Your task to perform on an android device: all mails in gmail Image 0: 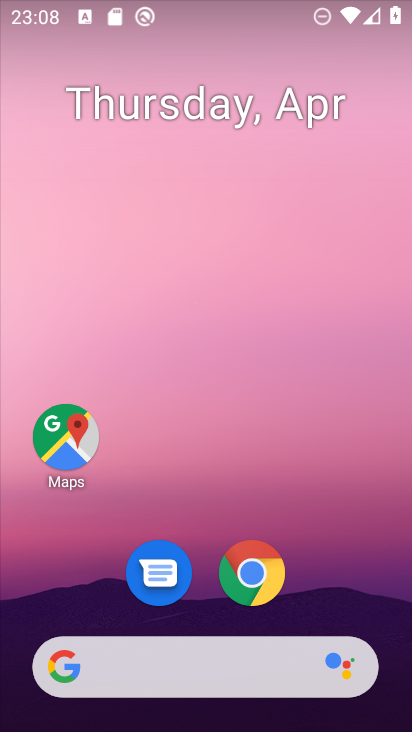
Step 0: drag from (336, 610) to (339, 74)
Your task to perform on an android device: all mails in gmail Image 1: 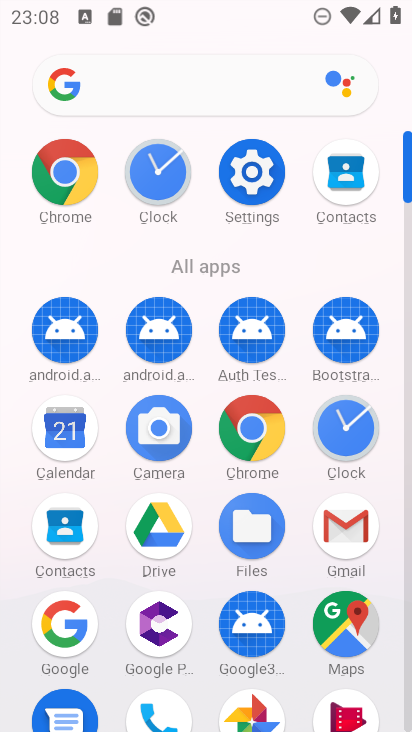
Step 1: click (363, 539)
Your task to perform on an android device: all mails in gmail Image 2: 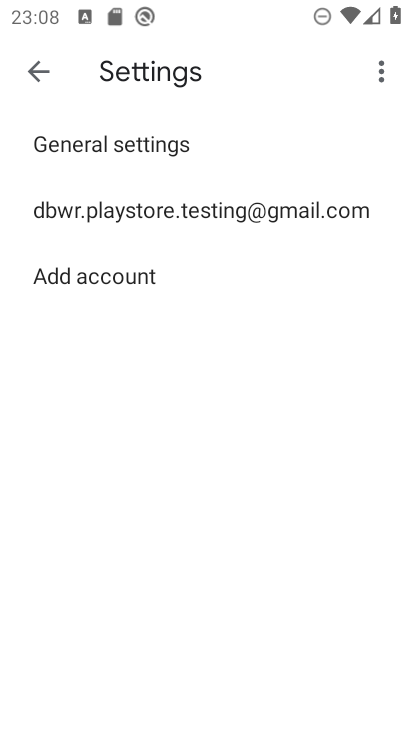
Step 2: click (41, 64)
Your task to perform on an android device: all mails in gmail Image 3: 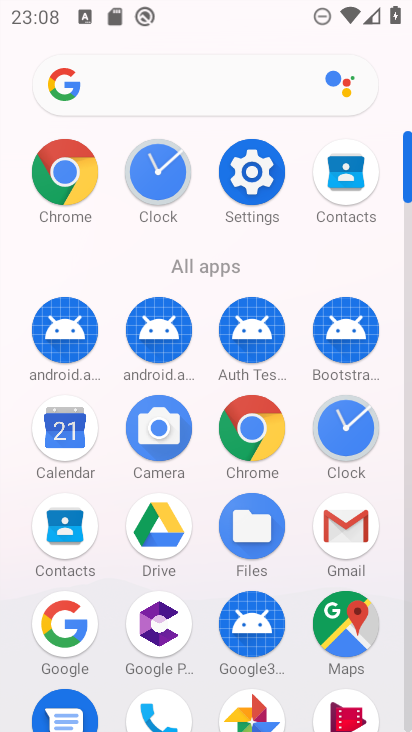
Step 3: click (345, 532)
Your task to perform on an android device: all mails in gmail Image 4: 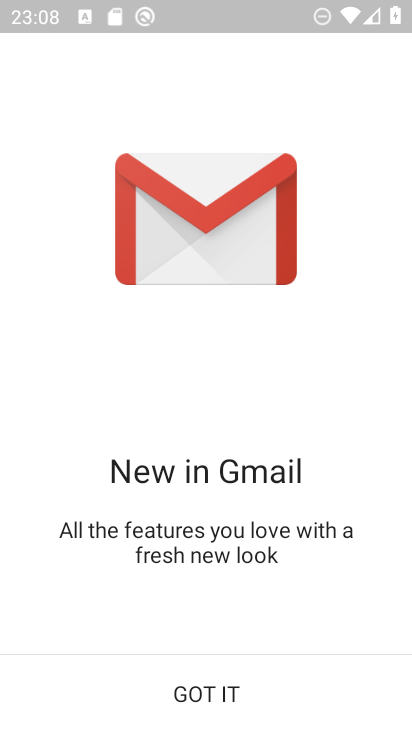
Step 4: click (221, 688)
Your task to perform on an android device: all mails in gmail Image 5: 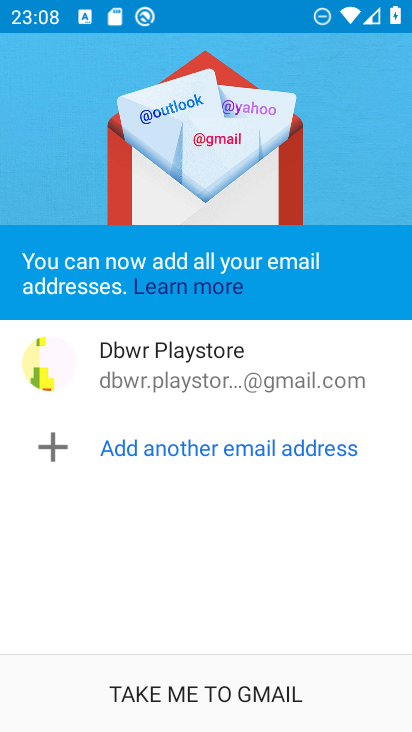
Step 5: click (253, 690)
Your task to perform on an android device: all mails in gmail Image 6: 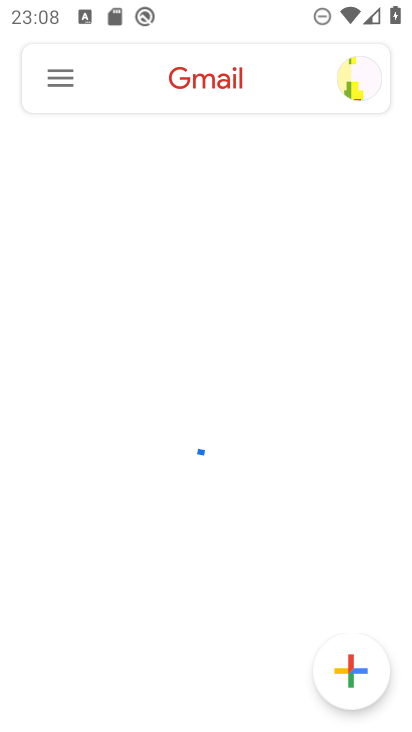
Step 6: click (64, 77)
Your task to perform on an android device: all mails in gmail Image 7: 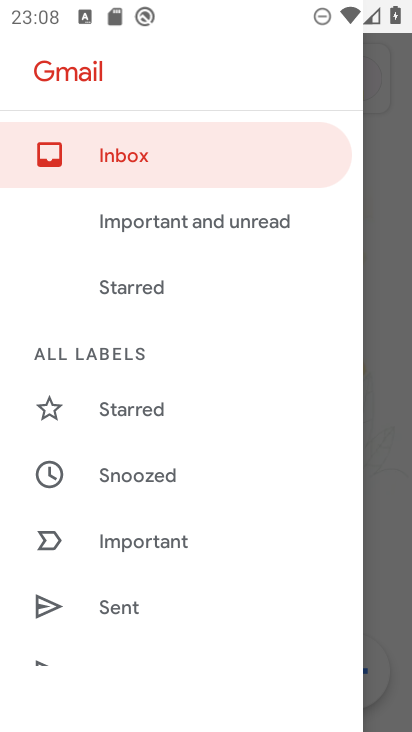
Step 7: drag from (233, 569) to (242, 156)
Your task to perform on an android device: all mails in gmail Image 8: 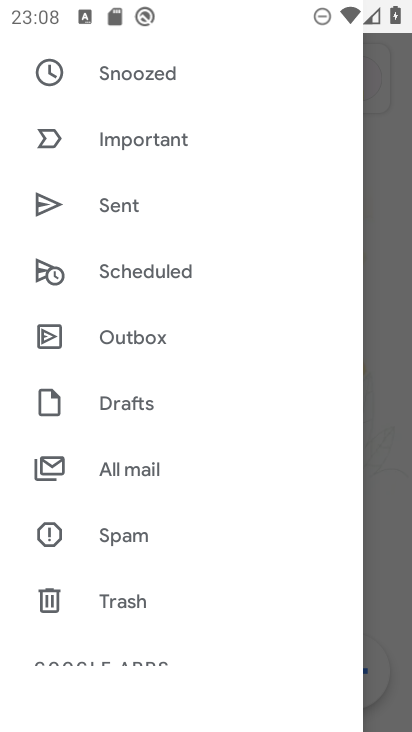
Step 8: click (196, 461)
Your task to perform on an android device: all mails in gmail Image 9: 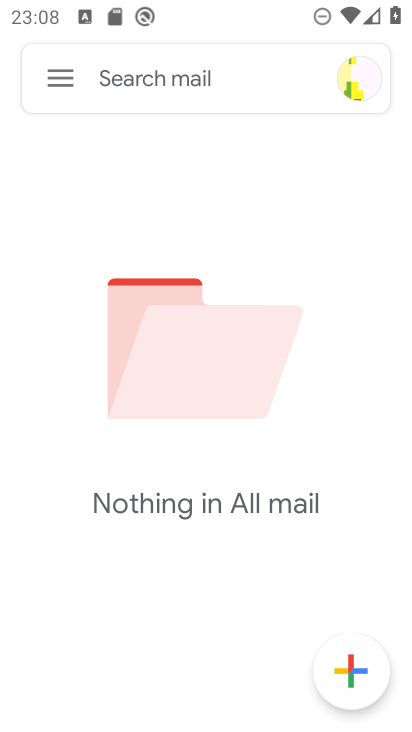
Step 9: task complete